Your task to perform on an android device: find snoozed emails in the gmail app Image 0: 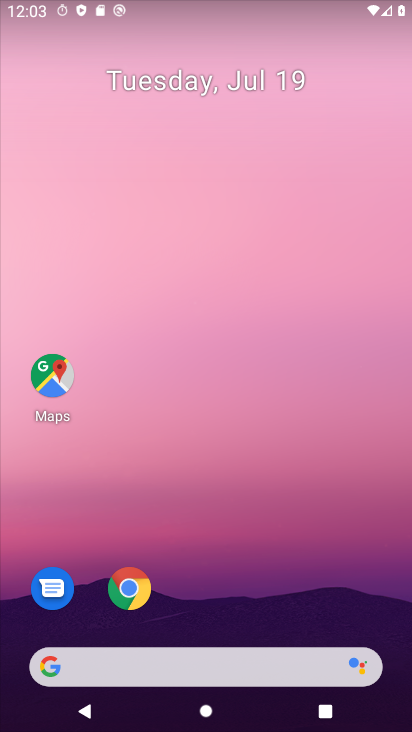
Step 0: drag from (263, 544) to (259, 161)
Your task to perform on an android device: find snoozed emails in the gmail app Image 1: 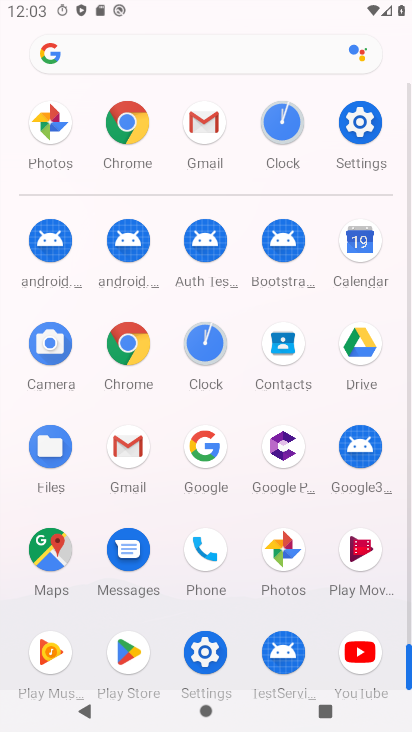
Step 1: click (117, 450)
Your task to perform on an android device: find snoozed emails in the gmail app Image 2: 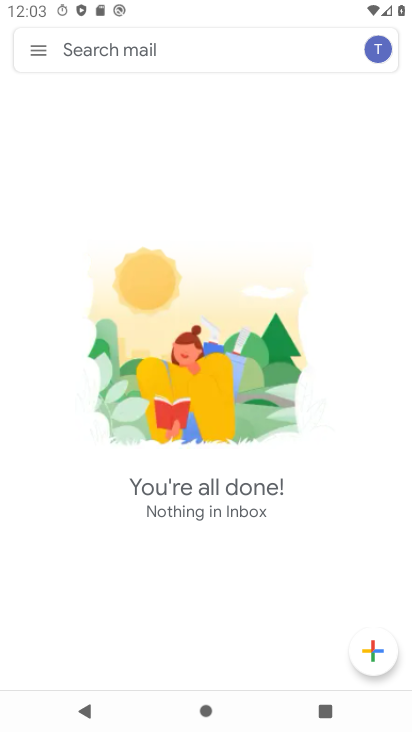
Step 2: click (127, 458)
Your task to perform on an android device: find snoozed emails in the gmail app Image 3: 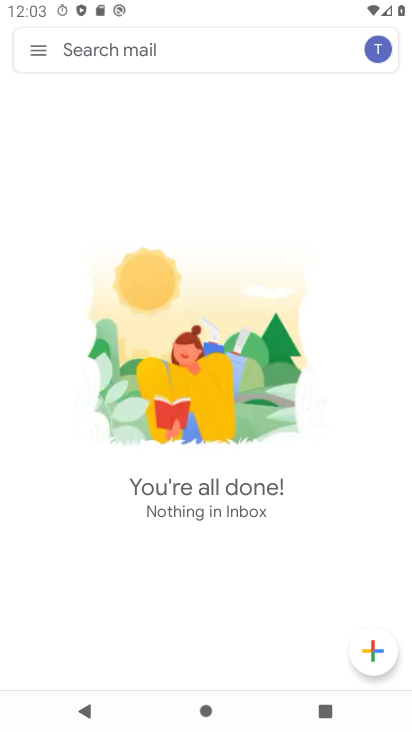
Step 3: click (38, 49)
Your task to perform on an android device: find snoozed emails in the gmail app Image 4: 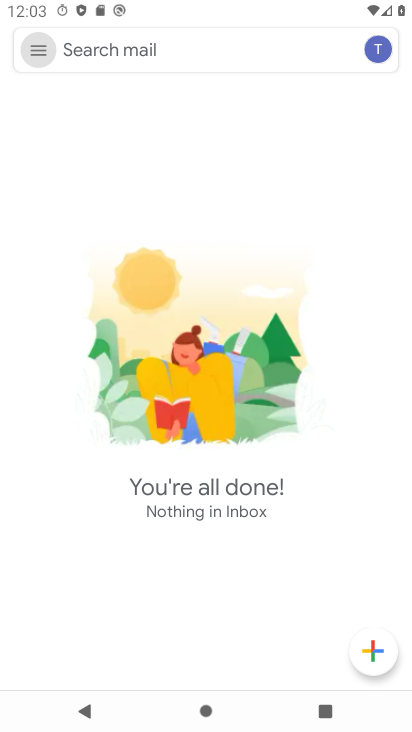
Step 4: click (38, 49)
Your task to perform on an android device: find snoozed emails in the gmail app Image 5: 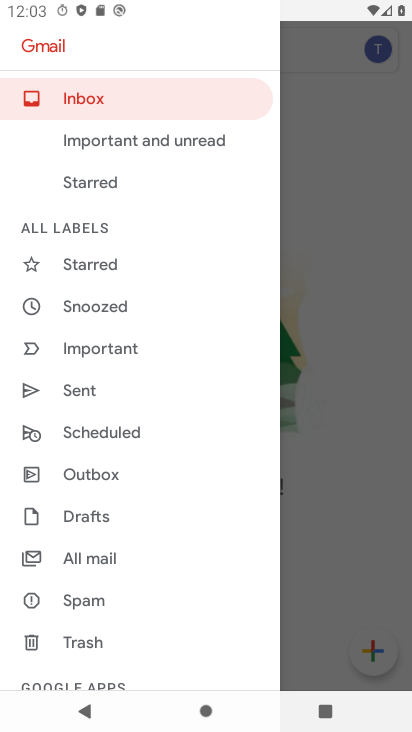
Step 5: drag from (93, 602) to (90, 242)
Your task to perform on an android device: find snoozed emails in the gmail app Image 6: 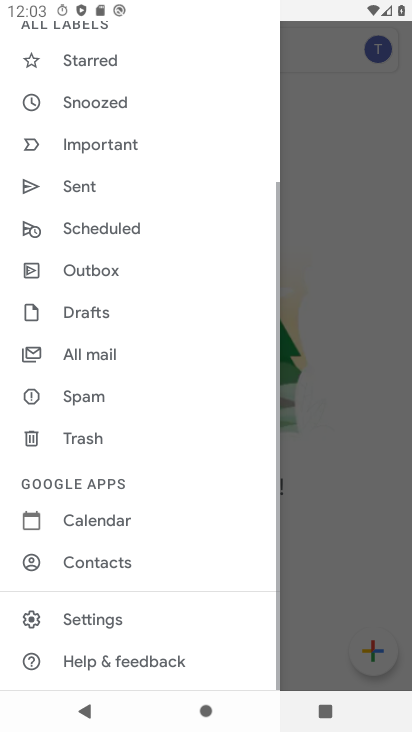
Step 6: drag from (128, 297) to (134, 237)
Your task to perform on an android device: find snoozed emails in the gmail app Image 7: 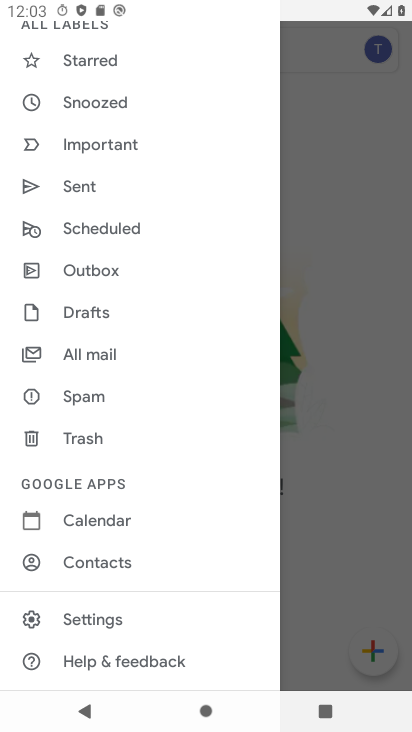
Step 7: click (102, 113)
Your task to perform on an android device: find snoozed emails in the gmail app Image 8: 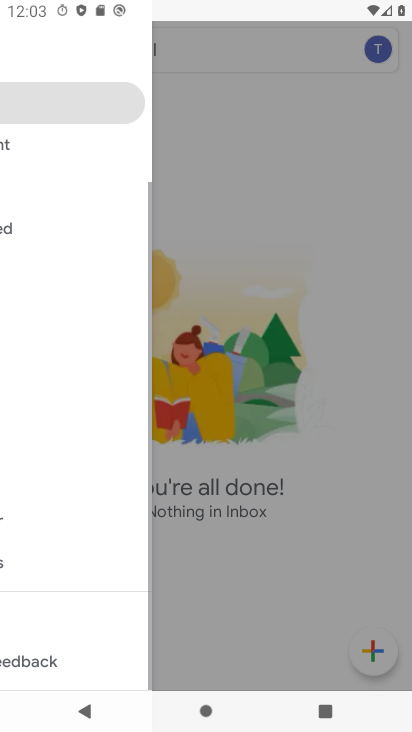
Step 8: click (102, 110)
Your task to perform on an android device: find snoozed emails in the gmail app Image 9: 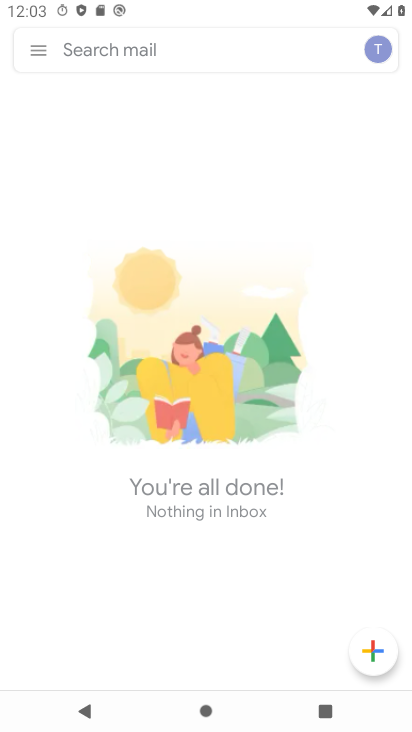
Step 9: click (102, 110)
Your task to perform on an android device: find snoozed emails in the gmail app Image 10: 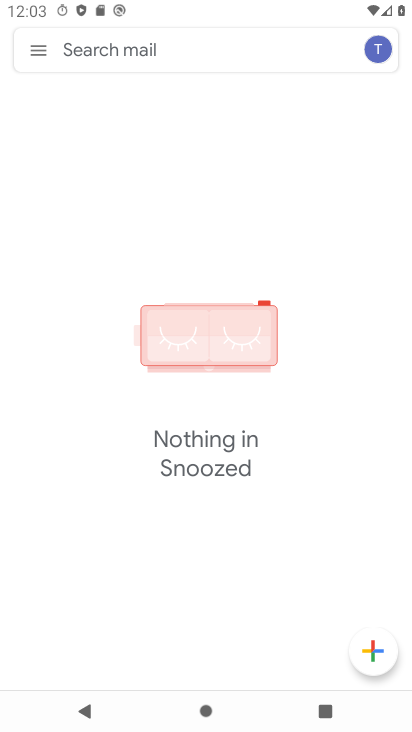
Step 10: task complete